Your task to perform on an android device: toggle data saver in the chrome app Image 0: 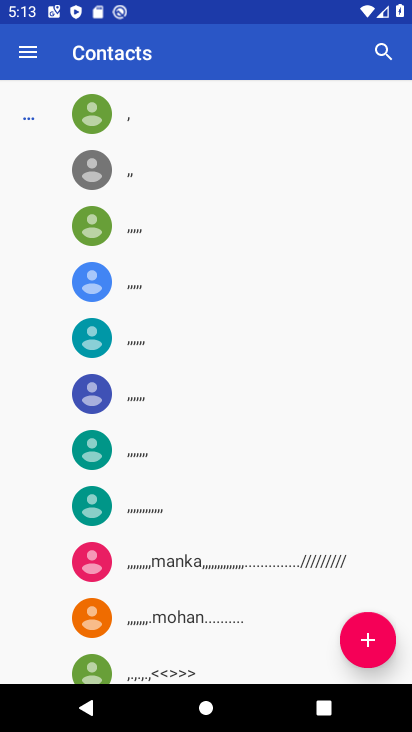
Step 0: press back button
Your task to perform on an android device: toggle data saver in the chrome app Image 1: 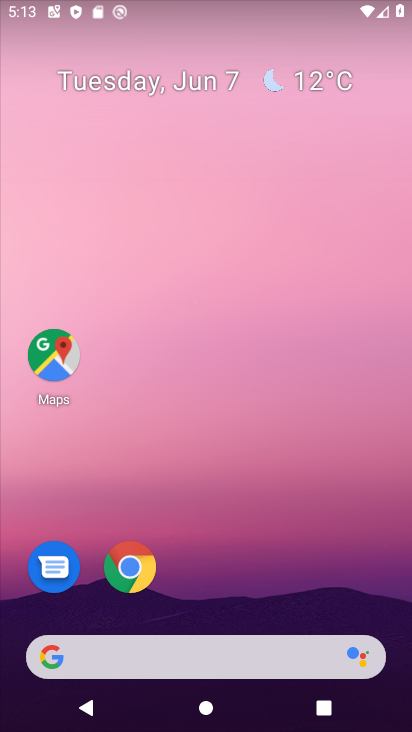
Step 1: drag from (307, 522) to (236, 32)
Your task to perform on an android device: toggle data saver in the chrome app Image 2: 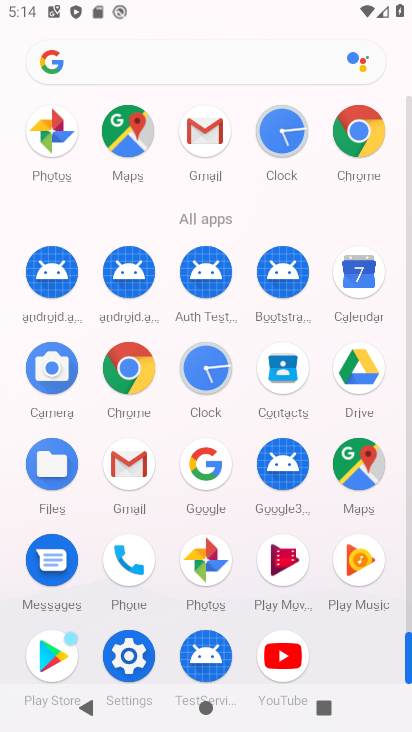
Step 2: click (129, 367)
Your task to perform on an android device: toggle data saver in the chrome app Image 3: 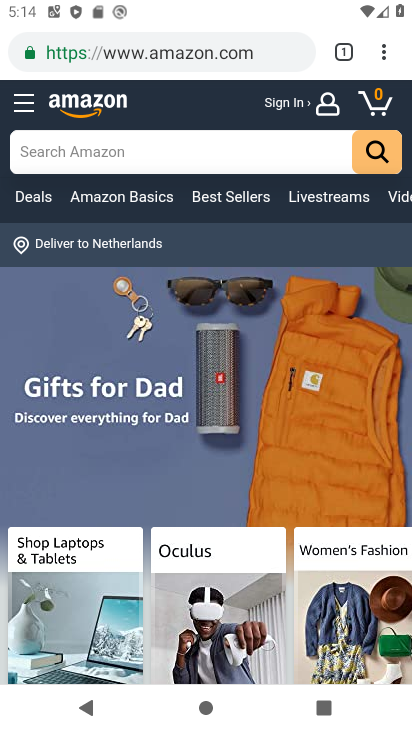
Step 3: click (379, 46)
Your task to perform on an android device: toggle data saver in the chrome app Image 4: 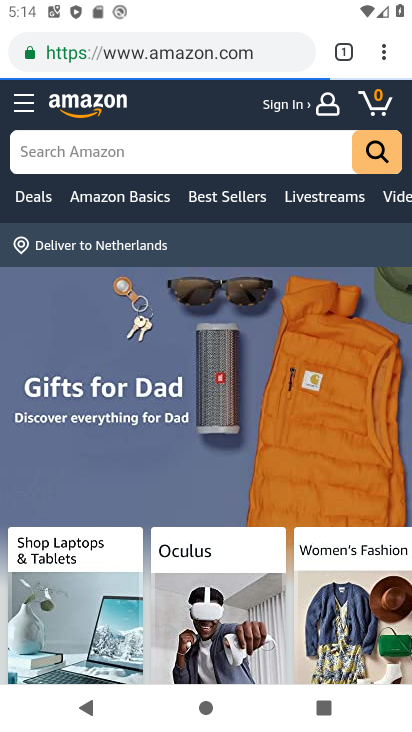
Step 4: drag from (379, 47) to (224, 602)
Your task to perform on an android device: toggle data saver in the chrome app Image 5: 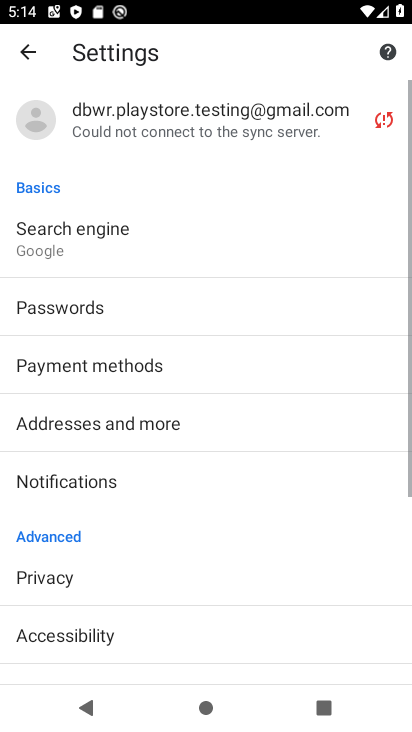
Step 5: drag from (176, 589) to (200, 197)
Your task to perform on an android device: toggle data saver in the chrome app Image 6: 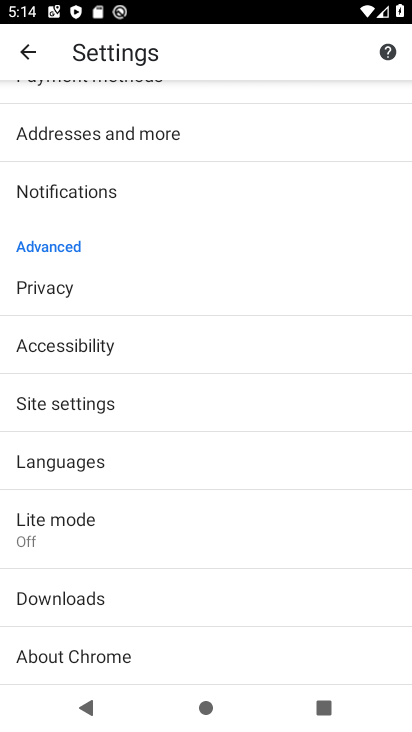
Step 6: click (107, 505)
Your task to perform on an android device: toggle data saver in the chrome app Image 7: 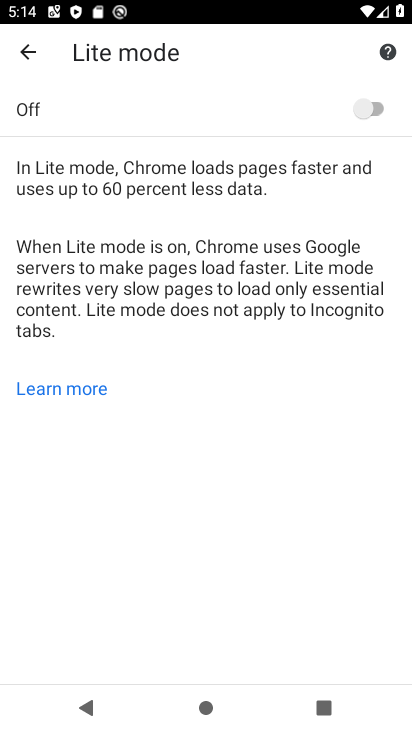
Step 7: click (363, 105)
Your task to perform on an android device: toggle data saver in the chrome app Image 8: 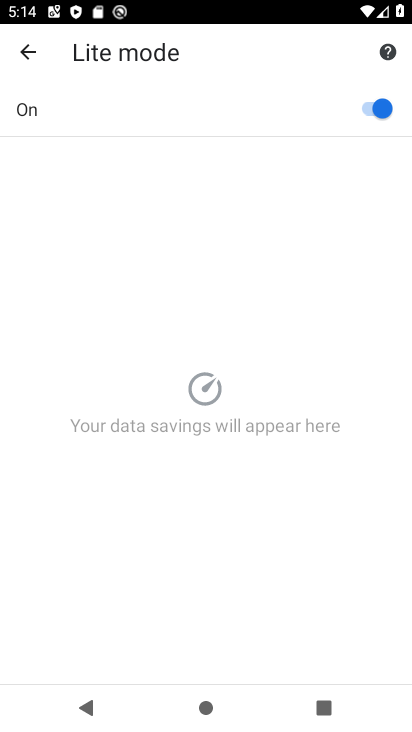
Step 8: task complete